Your task to perform on an android device: uninstall "DuckDuckGo Privacy Browser" Image 0: 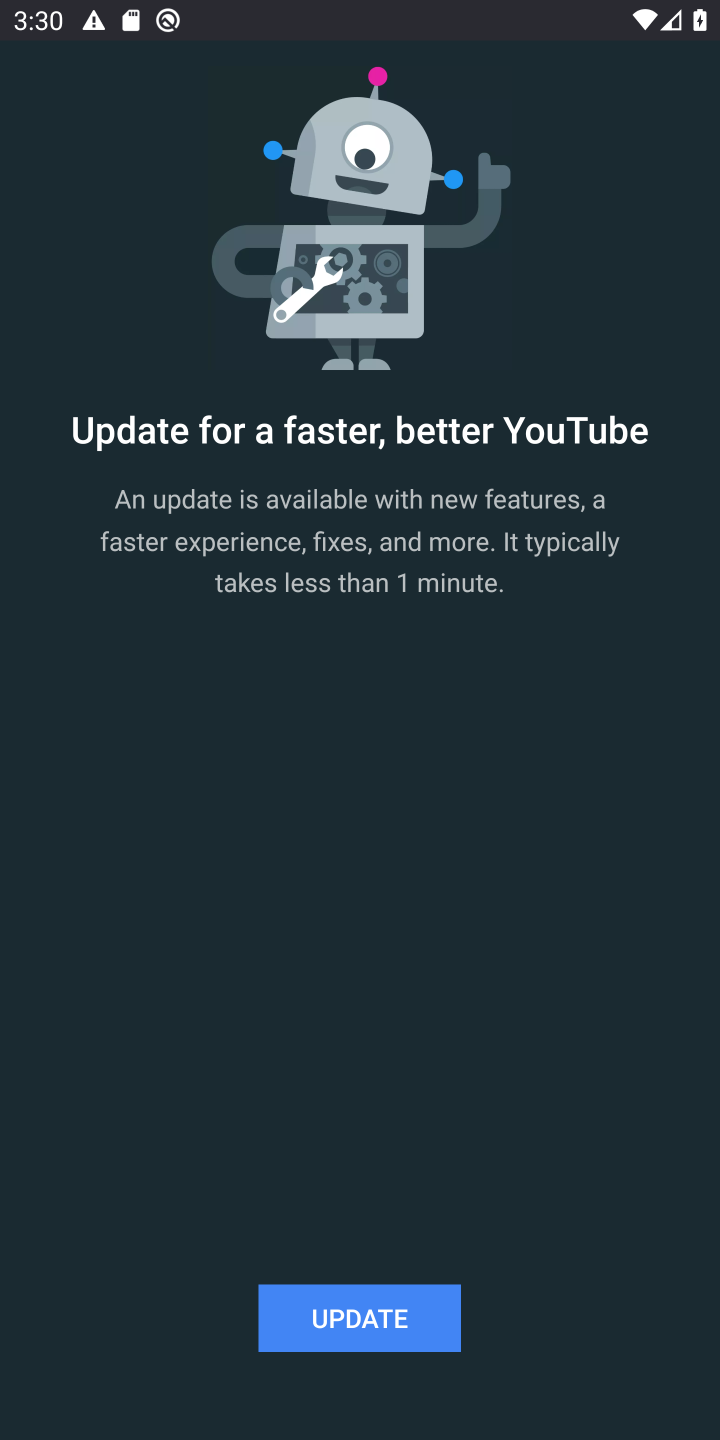
Step 0: press home button
Your task to perform on an android device: uninstall "DuckDuckGo Privacy Browser" Image 1: 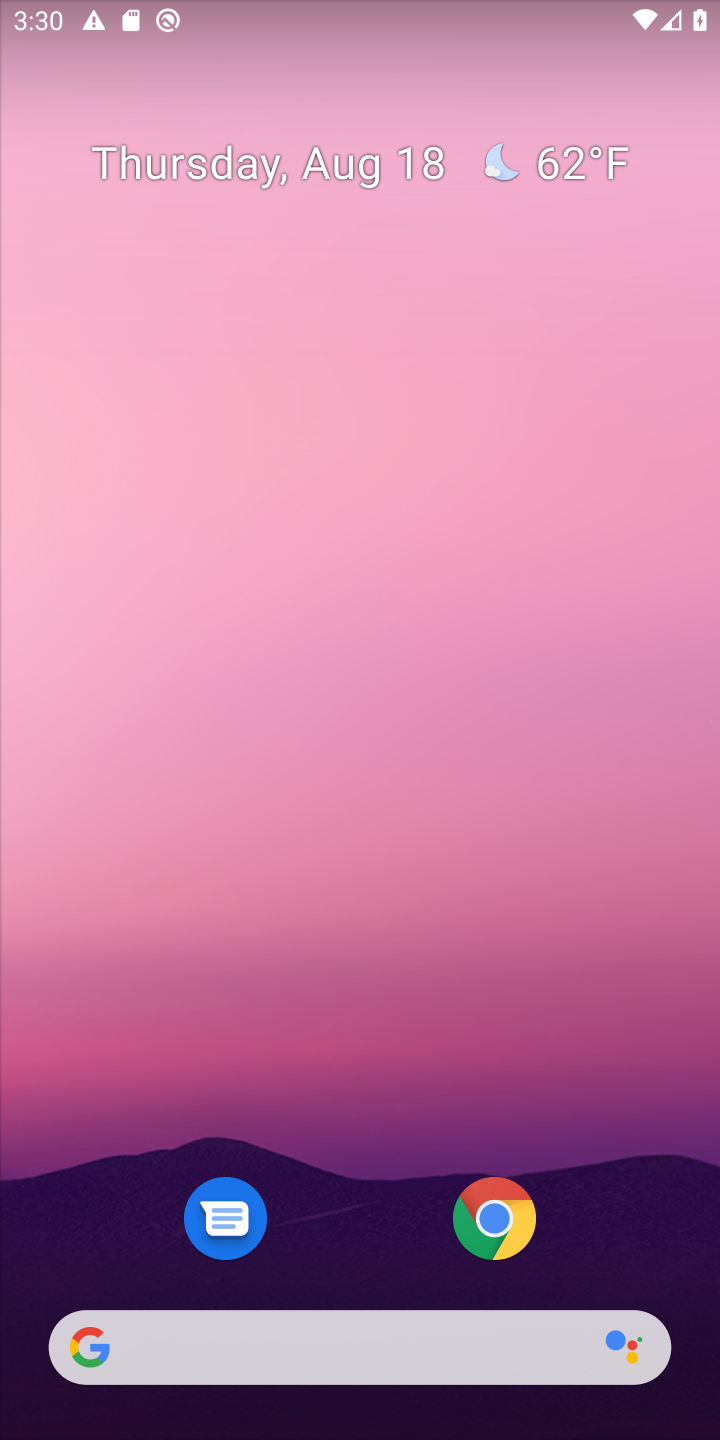
Step 1: drag from (336, 1119) to (287, 332)
Your task to perform on an android device: uninstall "DuckDuckGo Privacy Browser" Image 2: 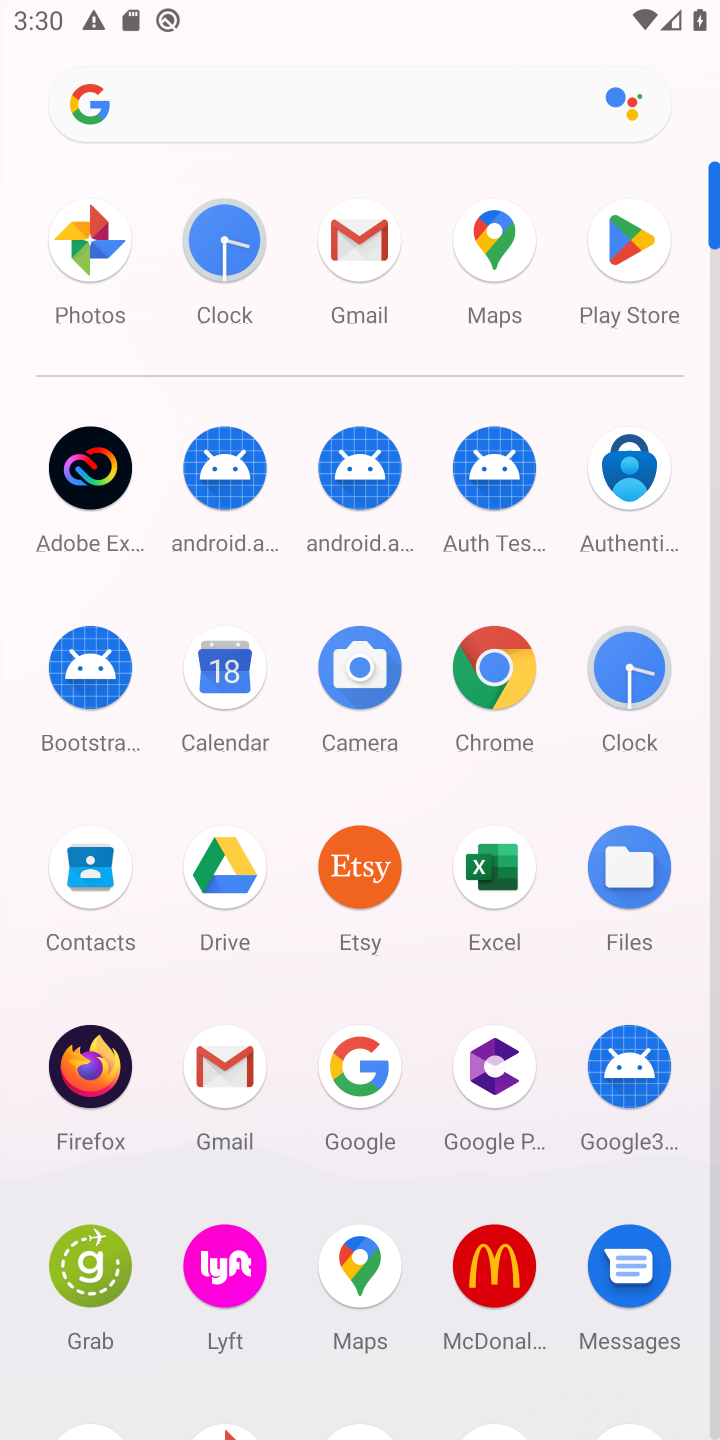
Step 2: click (614, 246)
Your task to perform on an android device: uninstall "DuckDuckGo Privacy Browser" Image 3: 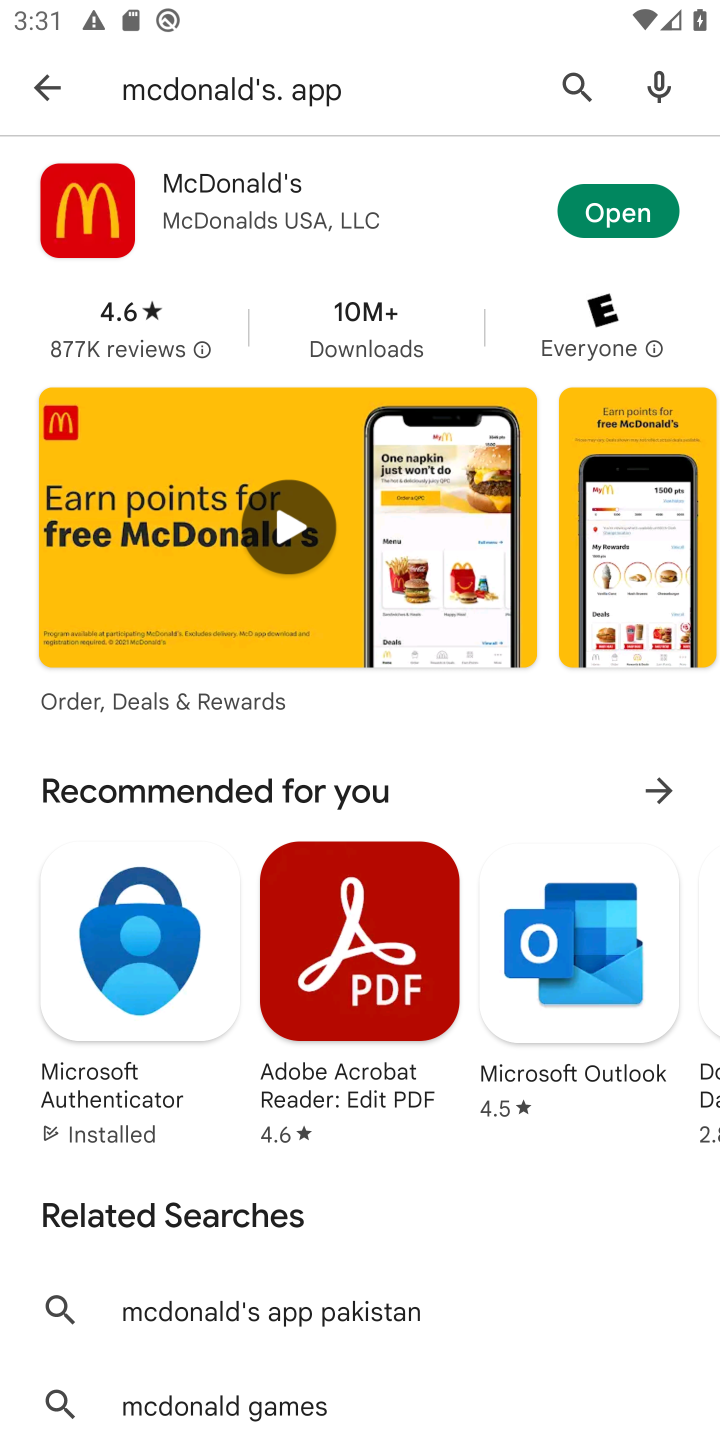
Step 3: click (578, 91)
Your task to perform on an android device: uninstall "DuckDuckGo Privacy Browser" Image 4: 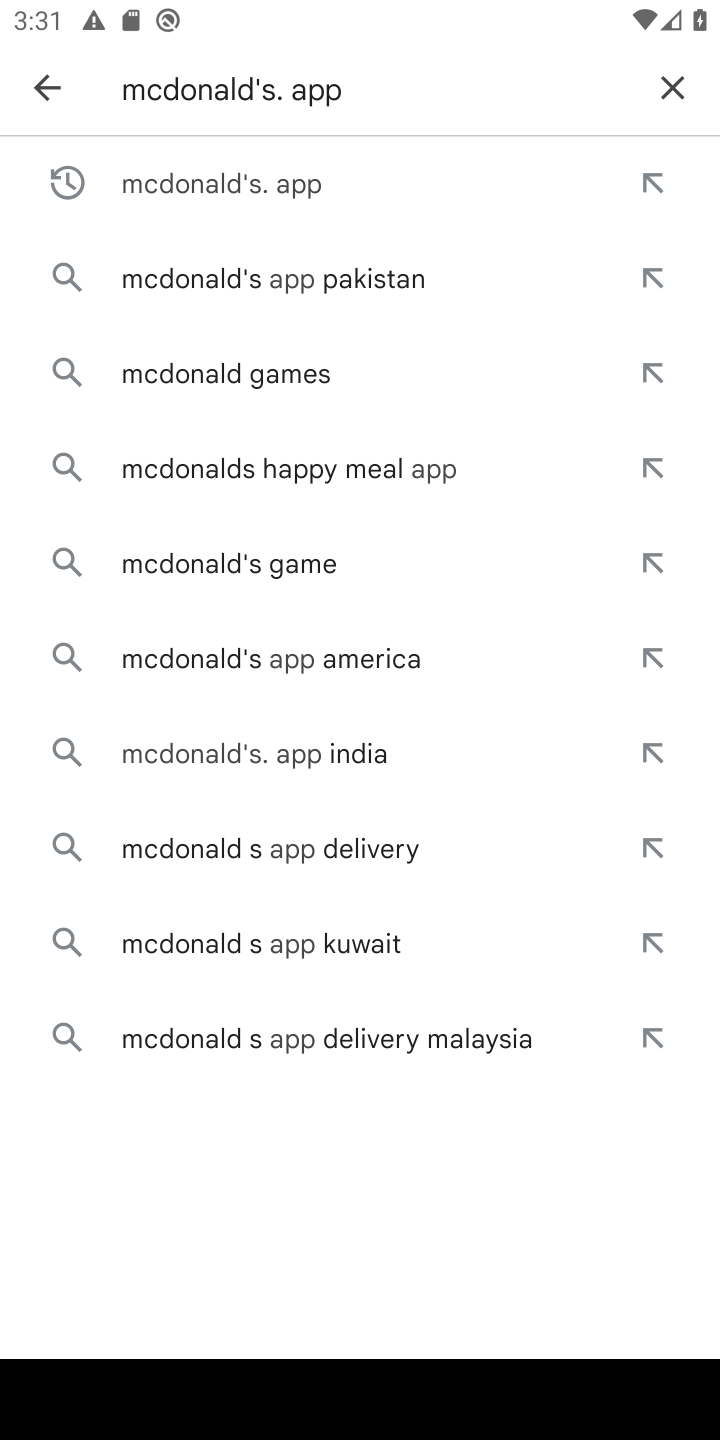
Step 4: click (664, 83)
Your task to perform on an android device: uninstall "DuckDuckGo Privacy Browser" Image 5: 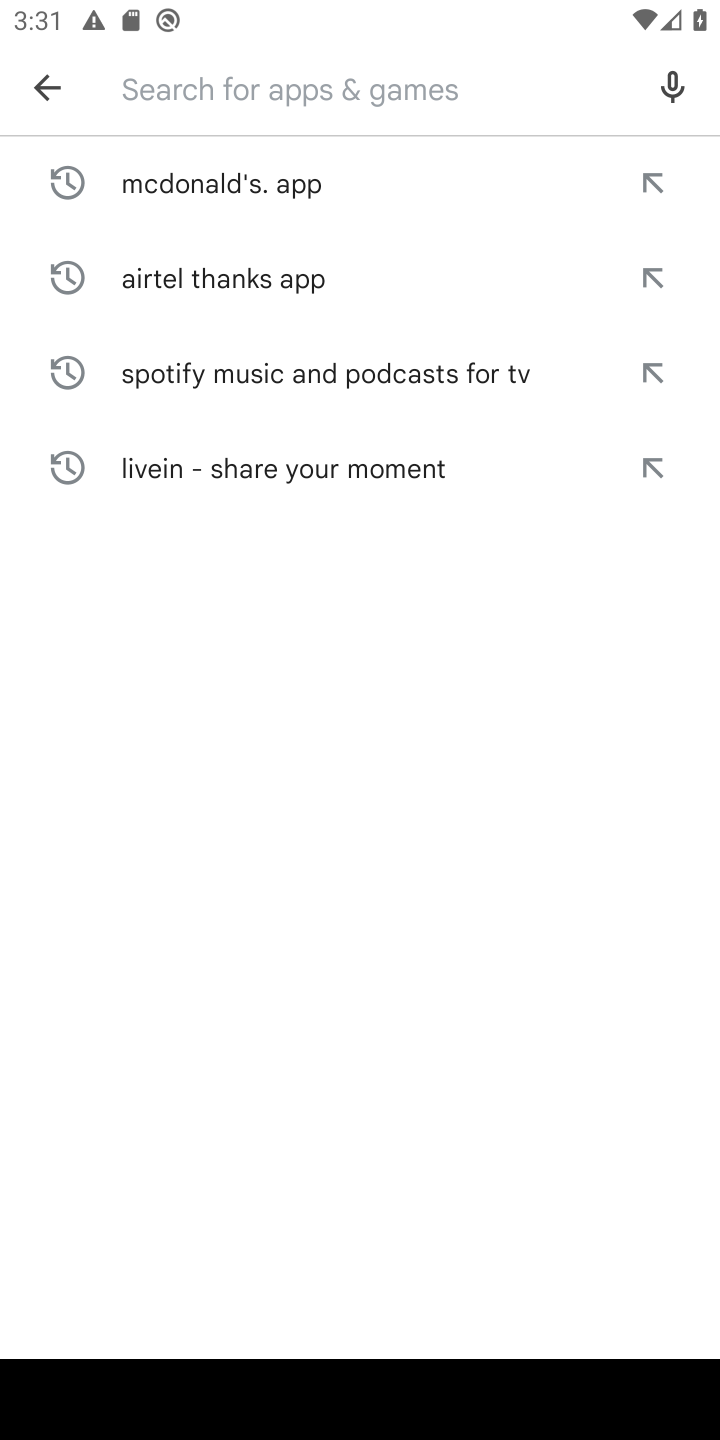
Step 5: type "DuckDuckGo Privacy Browser"
Your task to perform on an android device: uninstall "DuckDuckGo Privacy Browser" Image 6: 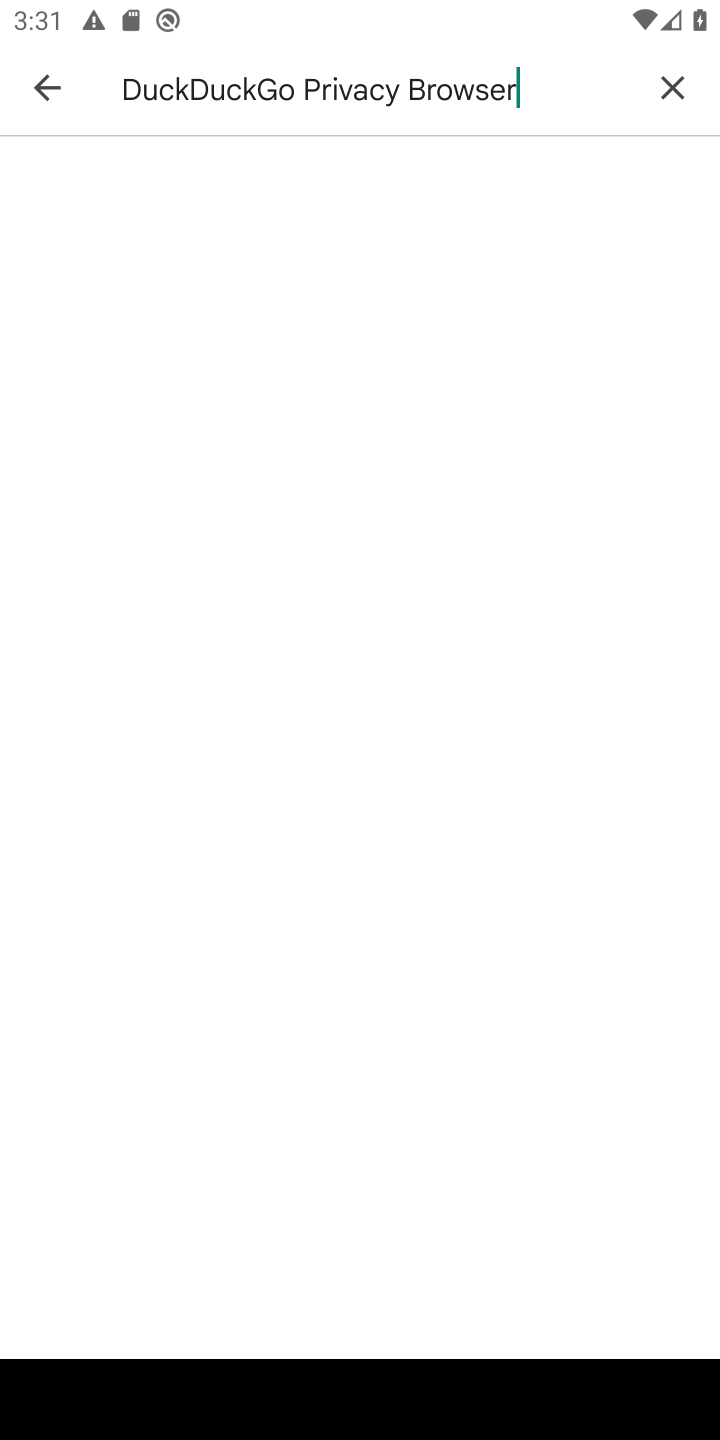
Step 6: type ""
Your task to perform on an android device: uninstall "DuckDuckGo Privacy Browser" Image 7: 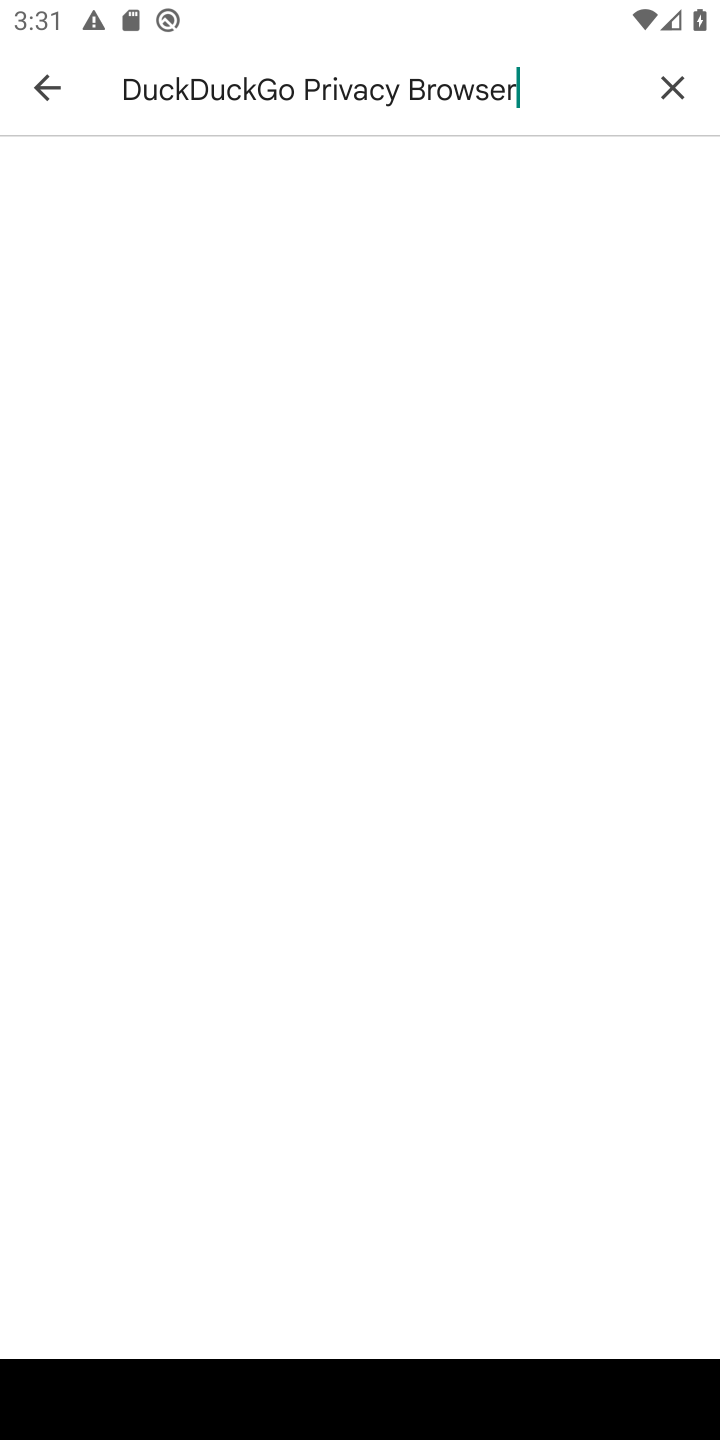
Step 7: task complete